Your task to perform on an android device: toggle improve location accuracy Image 0: 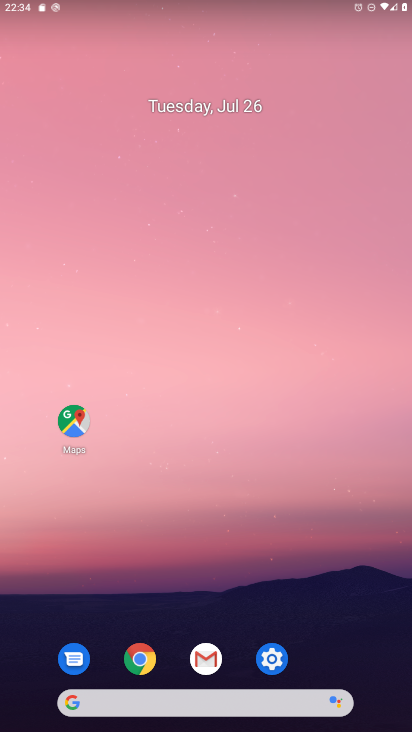
Step 0: click (284, 645)
Your task to perform on an android device: toggle improve location accuracy Image 1: 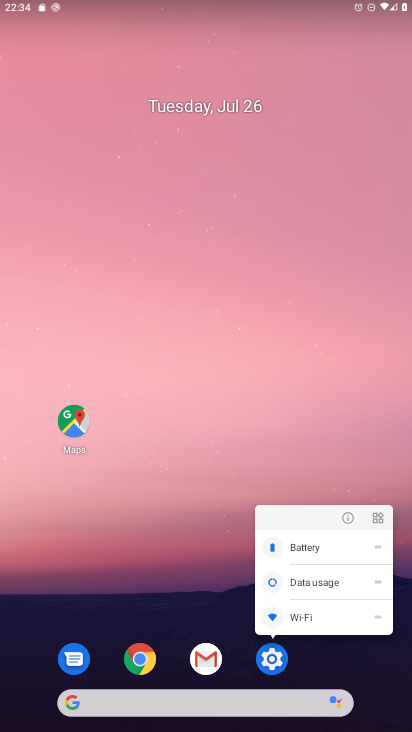
Step 1: click (276, 662)
Your task to perform on an android device: toggle improve location accuracy Image 2: 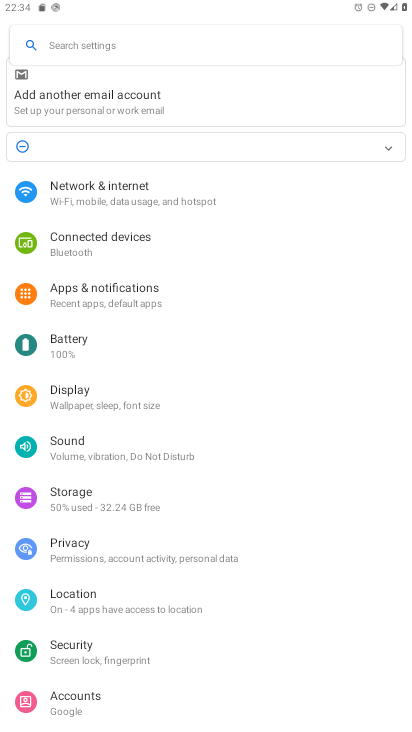
Step 2: click (82, 55)
Your task to perform on an android device: toggle improve location accuracy Image 3: 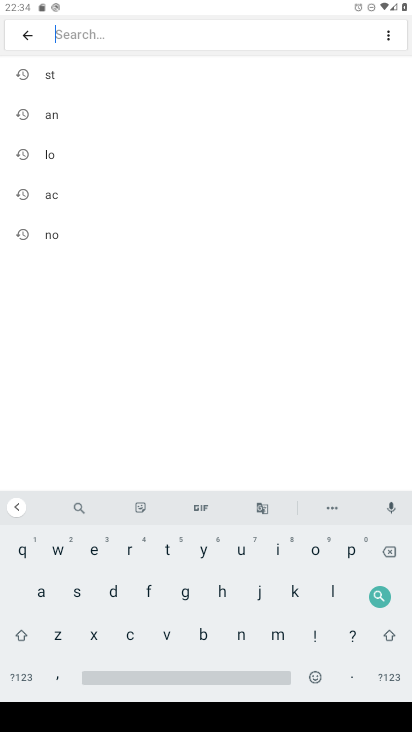
Step 3: click (62, 161)
Your task to perform on an android device: toggle improve location accuracy Image 4: 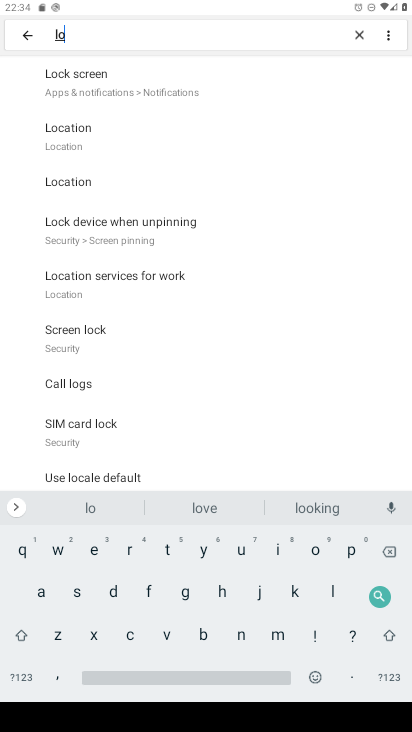
Step 4: click (93, 144)
Your task to perform on an android device: toggle improve location accuracy Image 5: 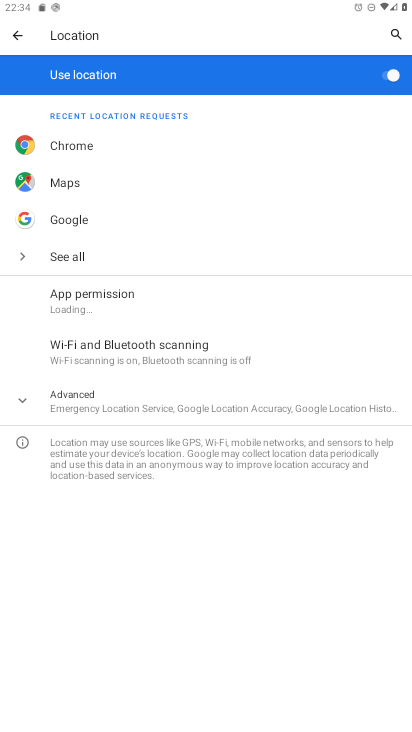
Step 5: click (27, 401)
Your task to perform on an android device: toggle improve location accuracy Image 6: 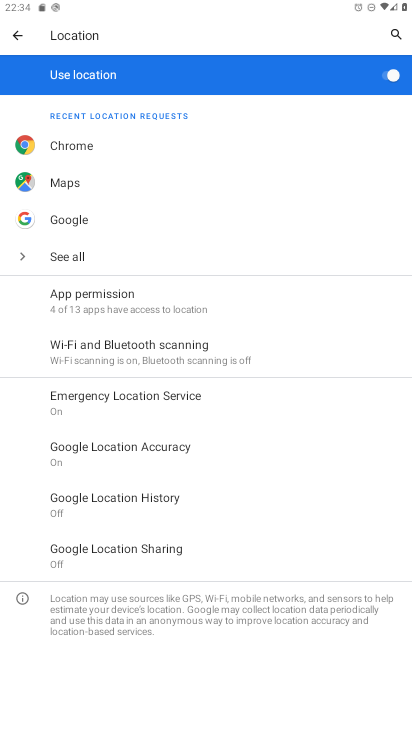
Step 6: click (124, 457)
Your task to perform on an android device: toggle improve location accuracy Image 7: 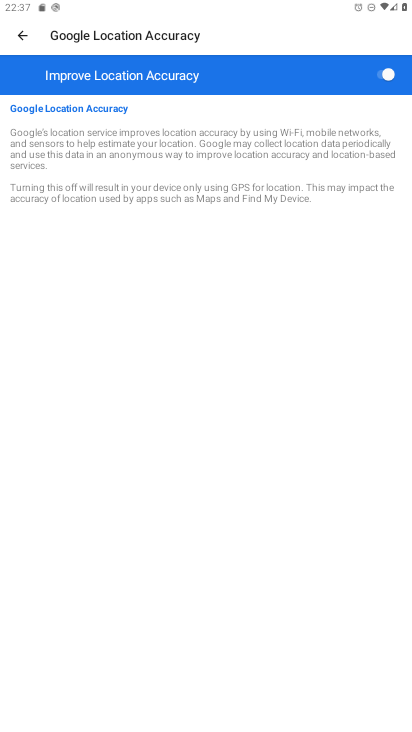
Step 7: task complete